Your task to perform on an android device: Open battery settings Image 0: 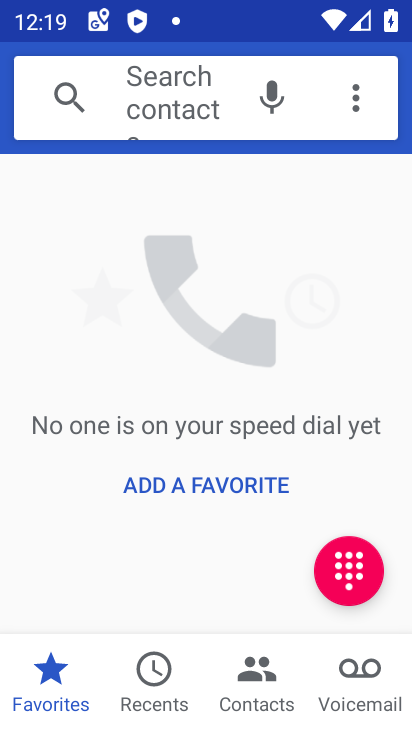
Step 0: press back button
Your task to perform on an android device: Open battery settings Image 1: 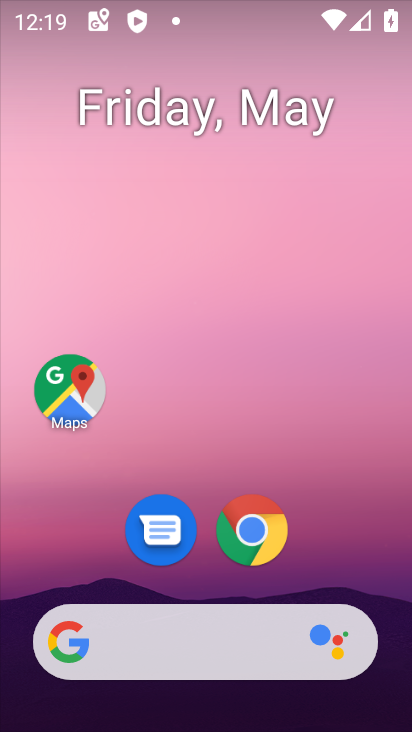
Step 1: drag from (317, 568) to (236, 91)
Your task to perform on an android device: Open battery settings Image 2: 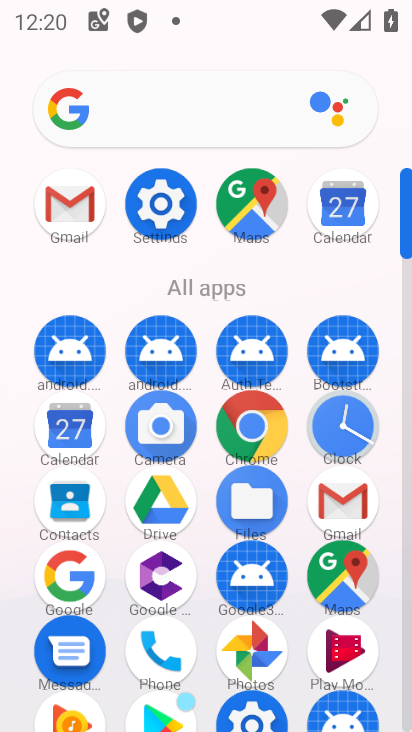
Step 2: click (160, 205)
Your task to perform on an android device: Open battery settings Image 3: 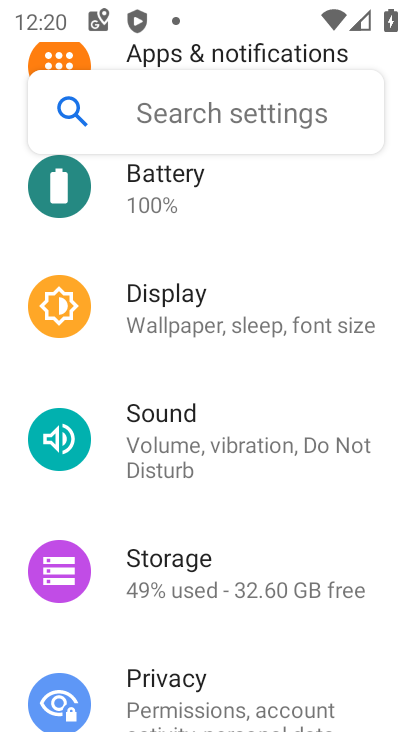
Step 3: drag from (249, 284) to (250, 500)
Your task to perform on an android device: Open battery settings Image 4: 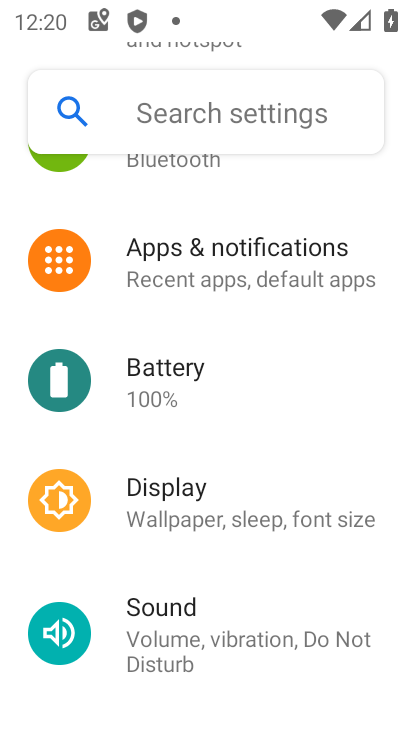
Step 4: click (153, 364)
Your task to perform on an android device: Open battery settings Image 5: 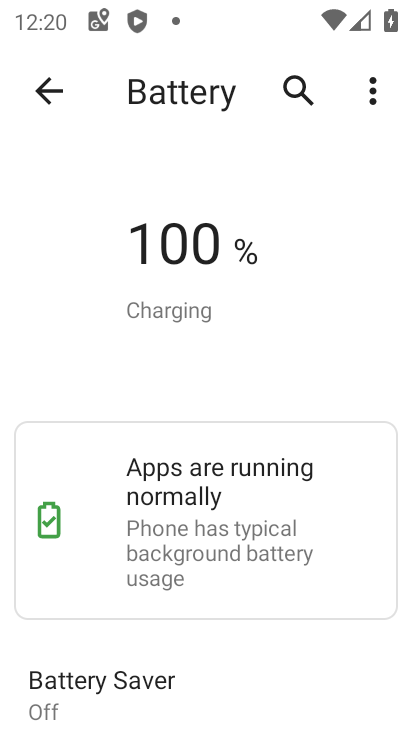
Step 5: task complete